Your task to perform on an android device: Open Youtube and go to "Your channel" Image 0: 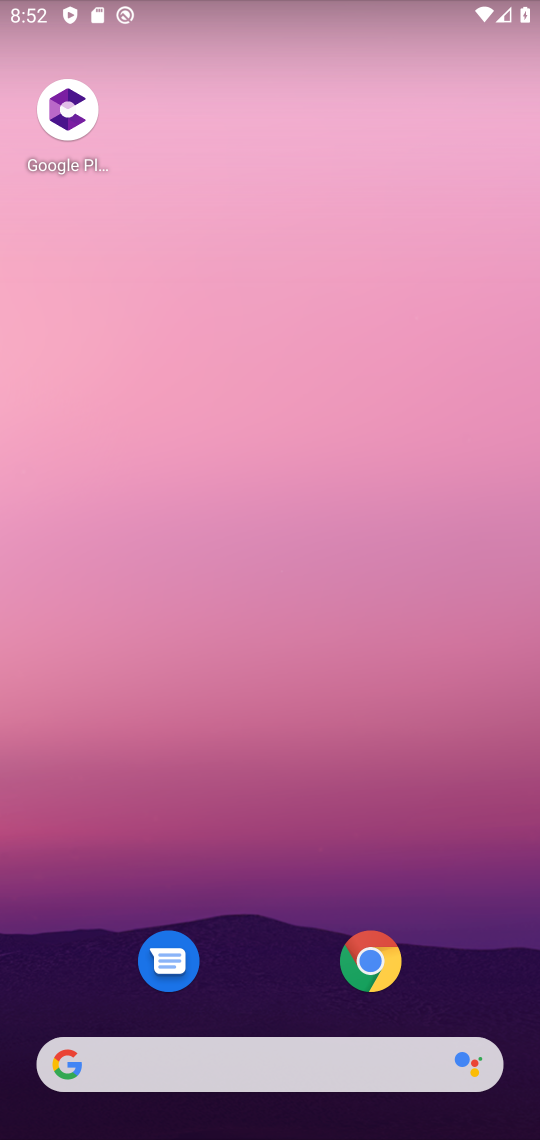
Step 0: drag from (281, 923) to (350, 82)
Your task to perform on an android device: Open Youtube and go to "Your channel" Image 1: 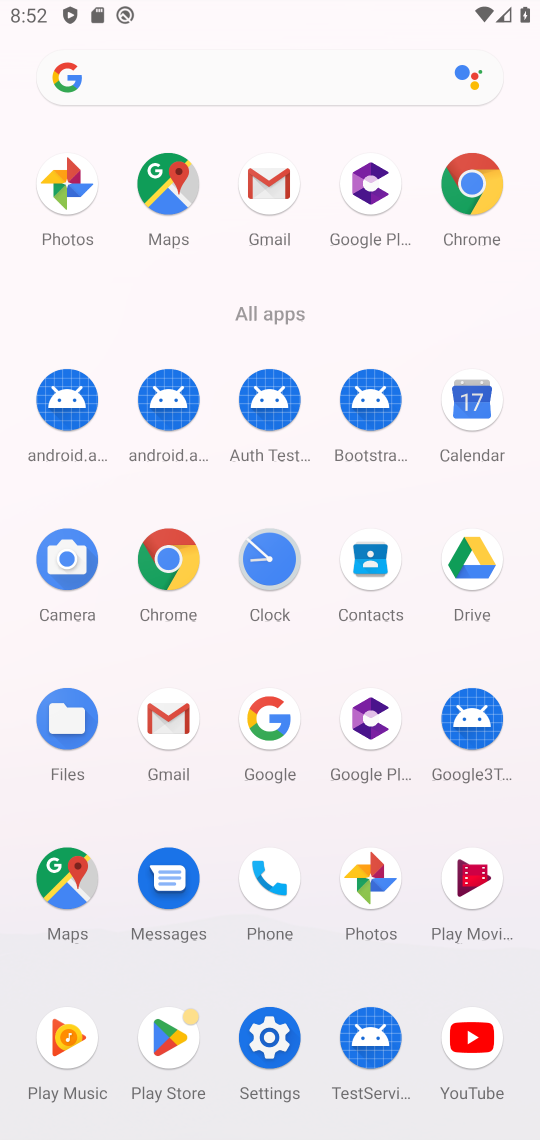
Step 1: click (470, 1033)
Your task to perform on an android device: Open Youtube and go to "Your channel" Image 2: 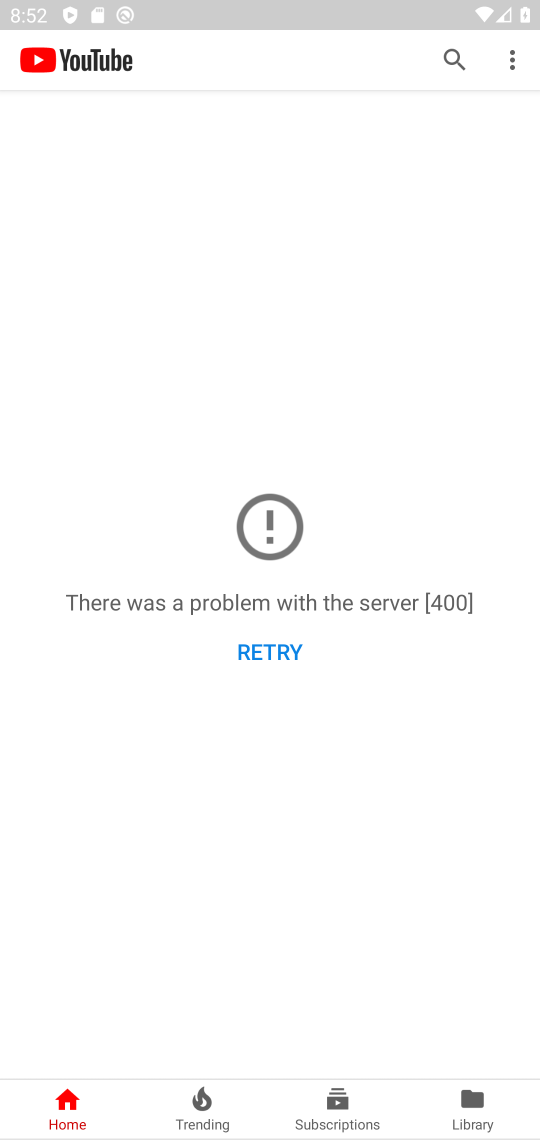
Step 2: task complete